Your task to perform on an android device: turn on the 24-hour format for clock Image 0: 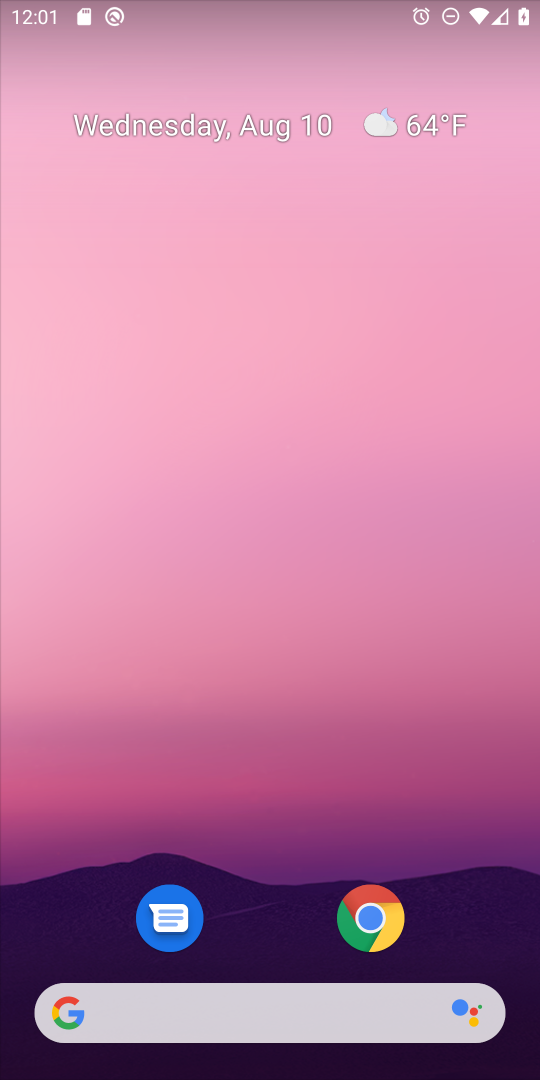
Step 0: drag from (276, 855) to (302, 160)
Your task to perform on an android device: turn on the 24-hour format for clock Image 1: 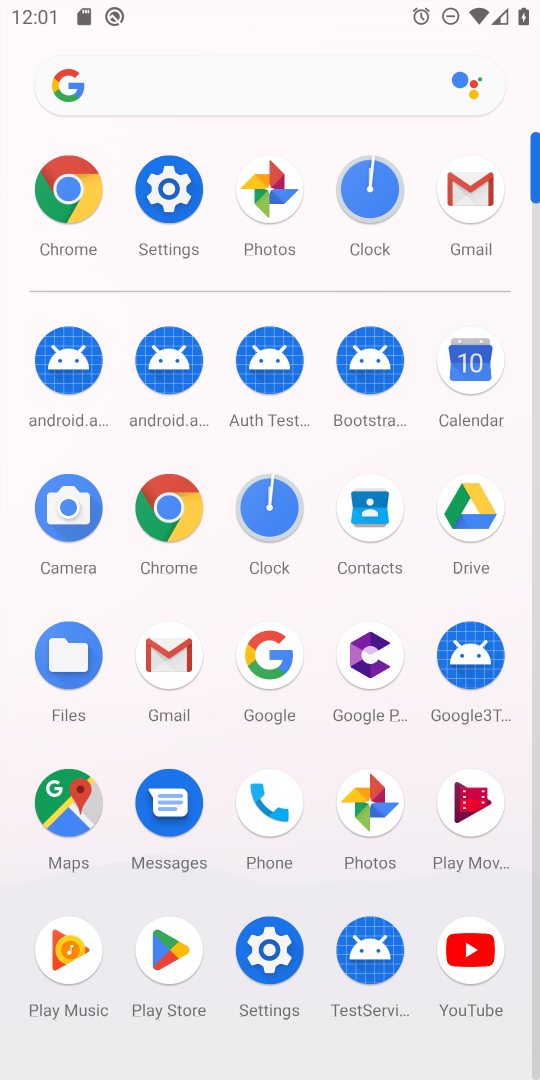
Step 1: click (267, 500)
Your task to perform on an android device: turn on the 24-hour format for clock Image 2: 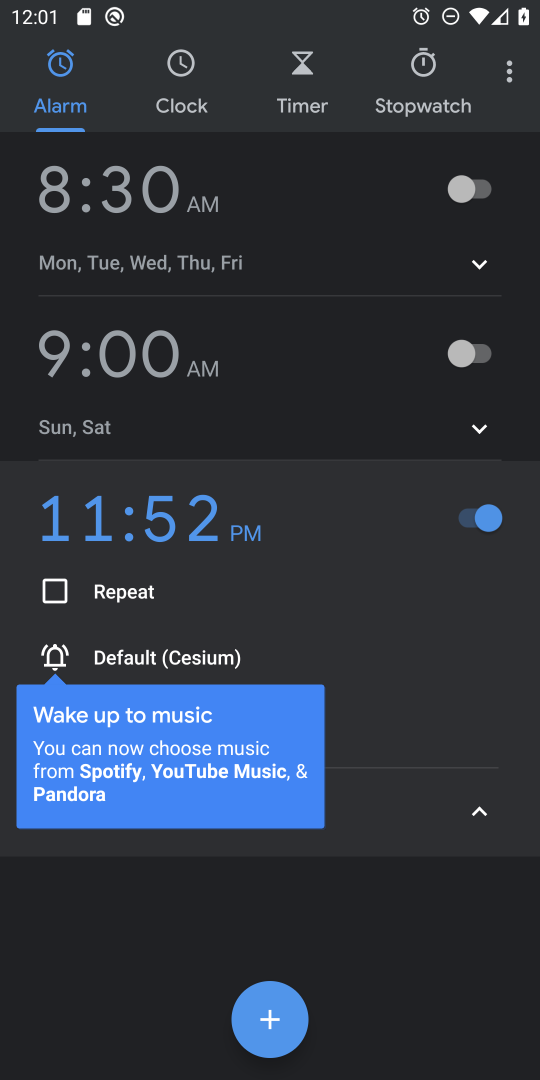
Step 2: click (518, 69)
Your task to perform on an android device: turn on the 24-hour format for clock Image 3: 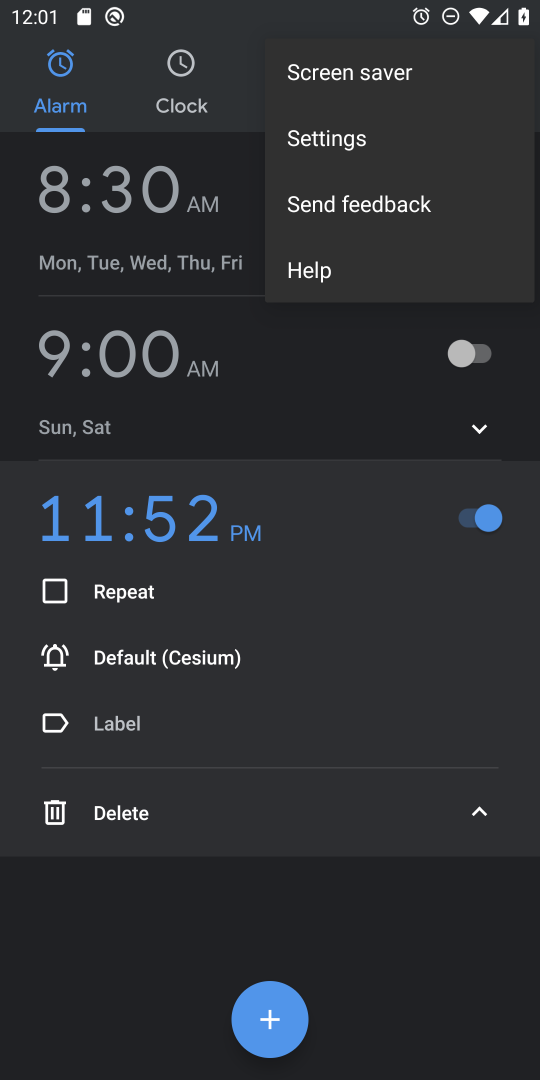
Step 3: click (353, 152)
Your task to perform on an android device: turn on the 24-hour format for clock Image 4: 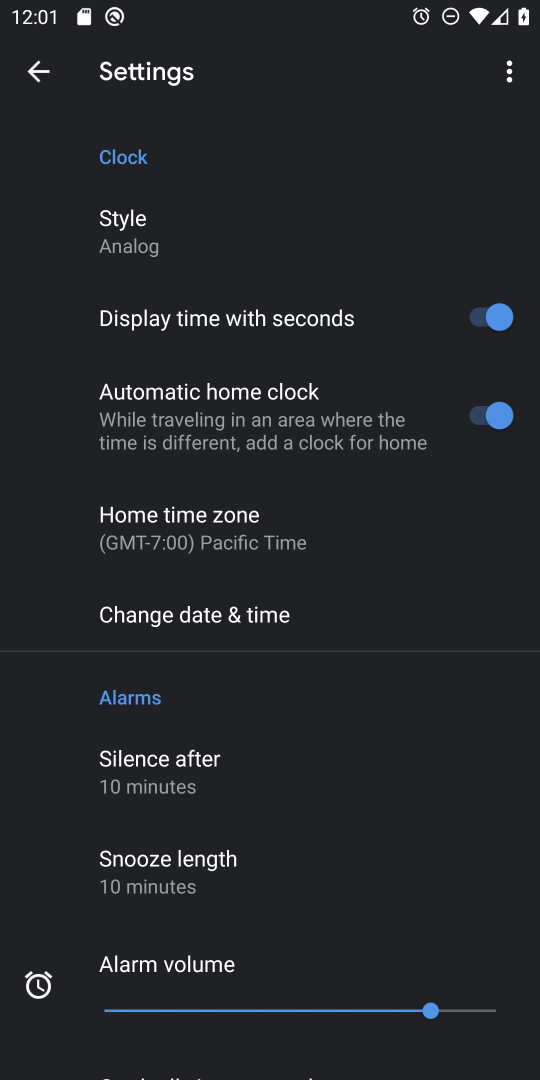
Step 4: click (247, 620)
Your task to perform on an android device: turn on the 24-hour format for clock Image 5: 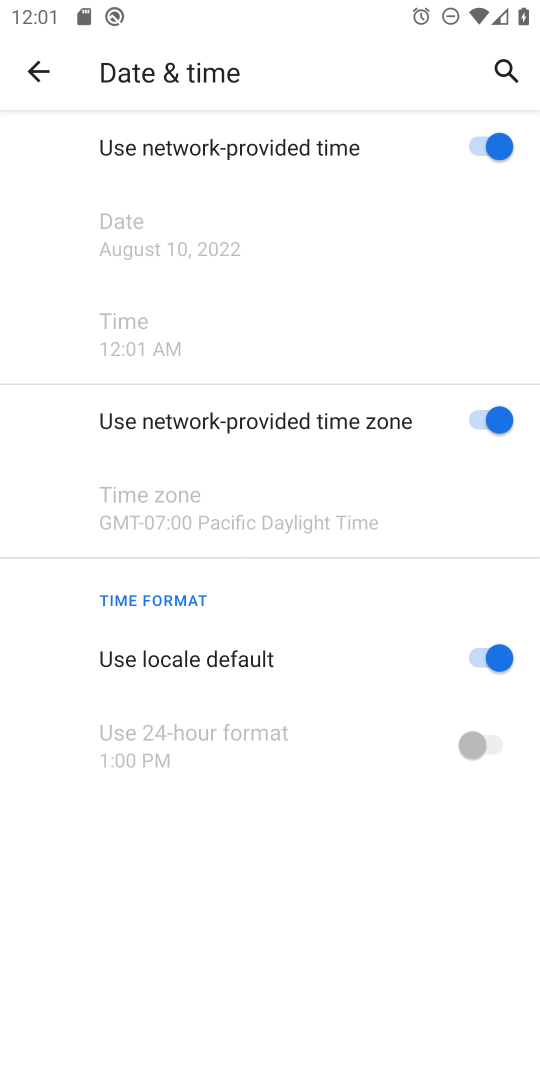
Step 5: click (496, 658)
Your task to perform on an android device: turn on the 24-hour format for clock Image 6: 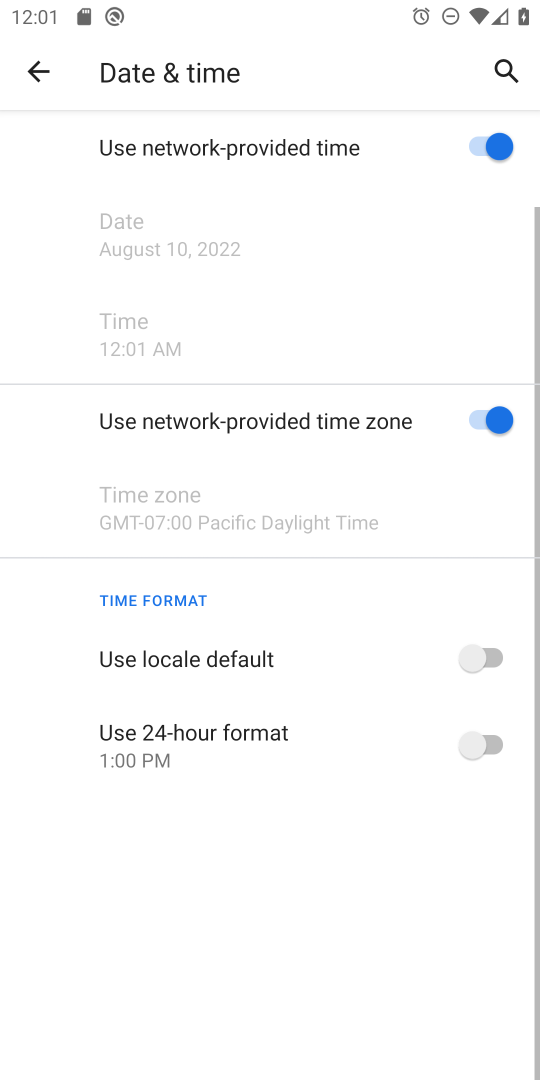
Step 6: click (481, 745)
Your task to perform on an android device: turn on the 24-hour format for clock Image 7: 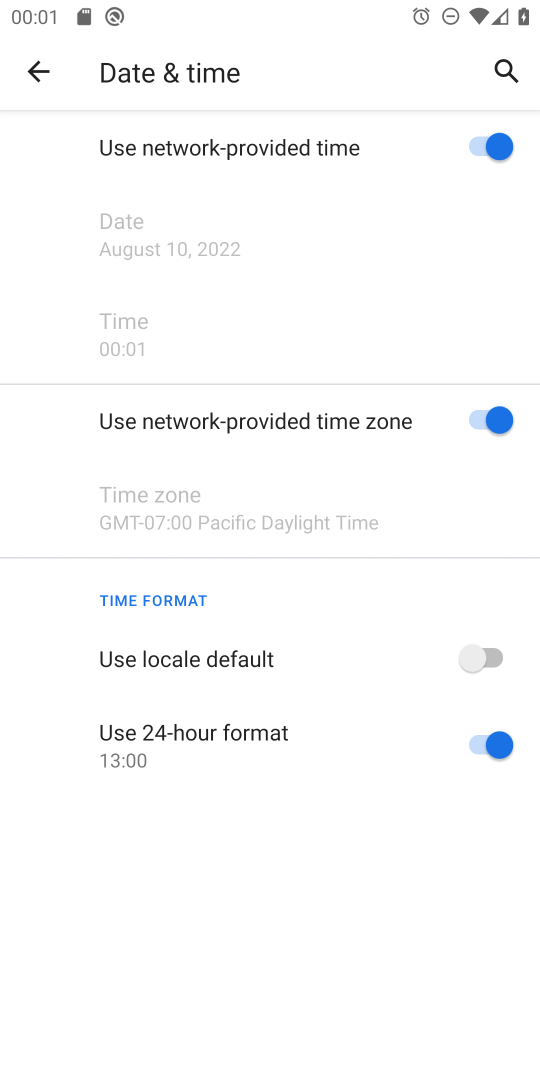
Step 7: task complete